Your task to perform on an android device: Go to display settings Image 0: 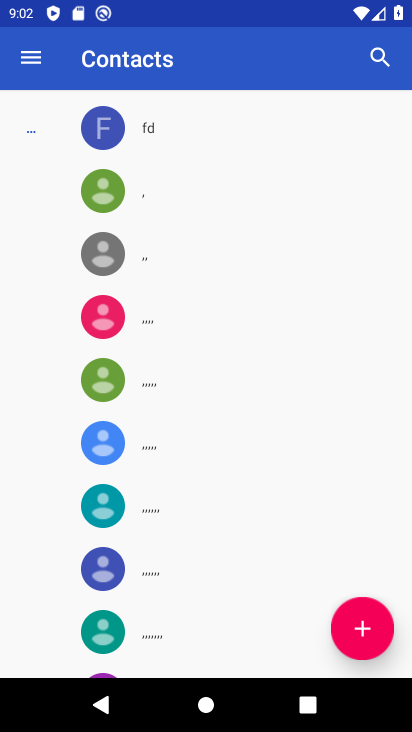
Step 0: press home button
Your task to perform on an android device: Go to display settings Image 1: 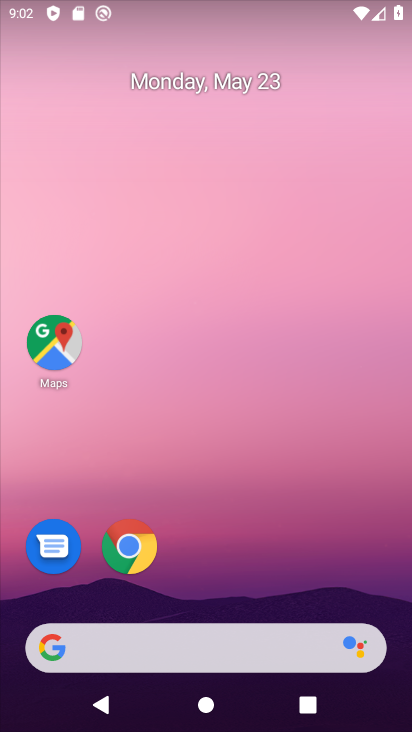
Step 1: drag from (352, 532) to (312, 131)
Your task to perform on an android device: Go to display settings Image 2: 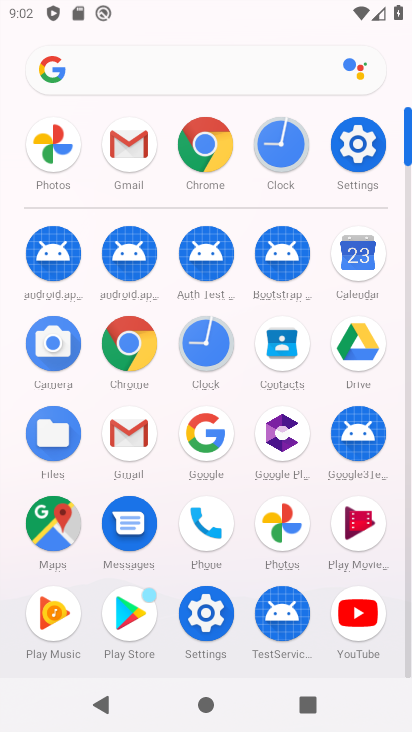
Step 2: click (361, 156)
Your task to perform on an android device: Go to display settings Image 3: 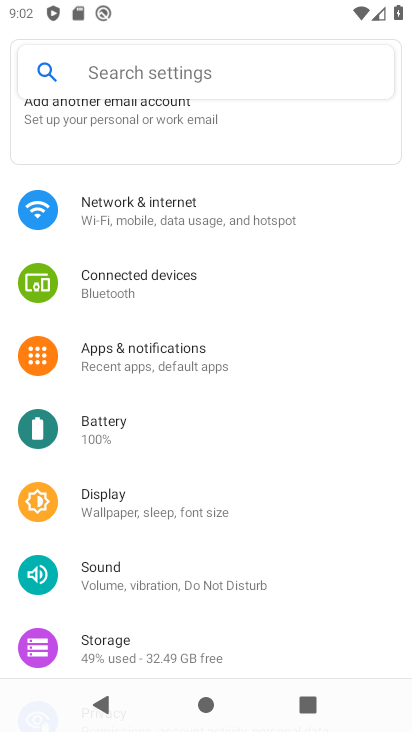
Step 3: drag from (125, 635) to (212, 288)
Your task to perform on an android device: Go to display settings Image 4: 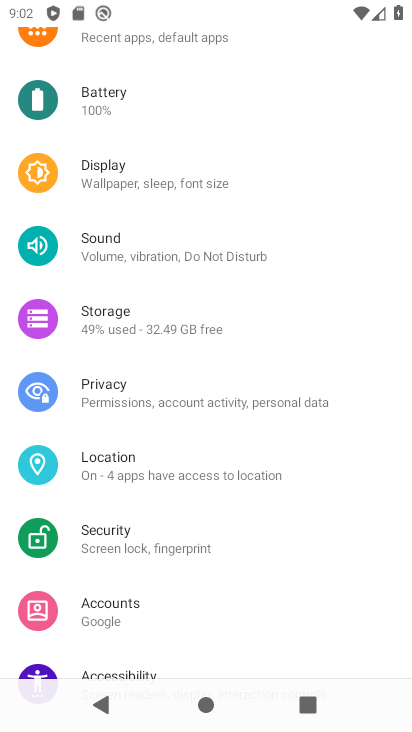
Step 4: click (140, 191)
Your task to perform on an android device: Go to display settings Image 5: 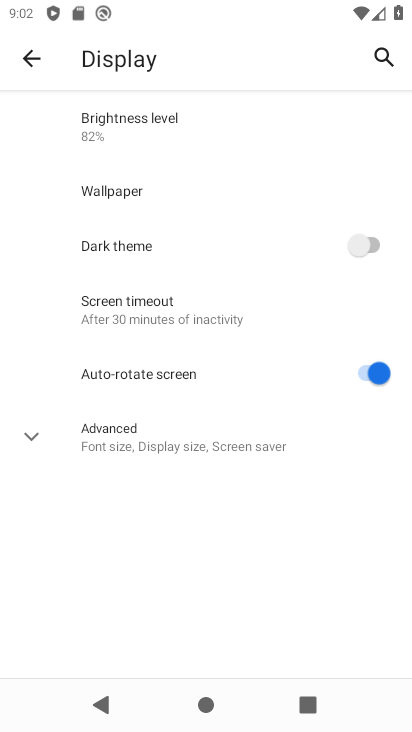
Step 5: task complete